Your task to perform on an android device: turn on showing notifications on the lock screen Image 0: 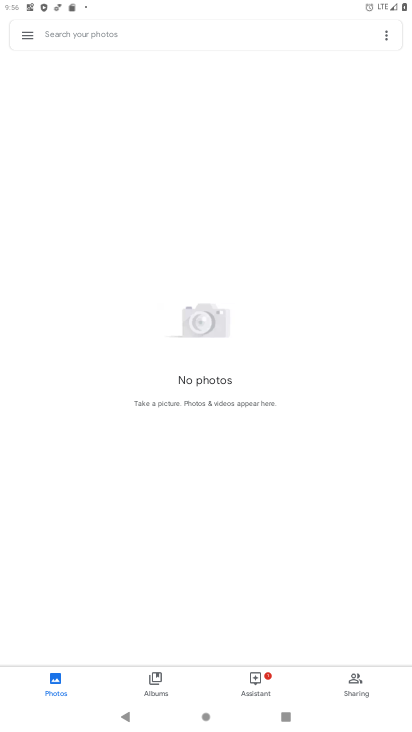
Step 0: press home button
Your task to perform on an android device: turn on showing notifications on the lock screen Image 1: 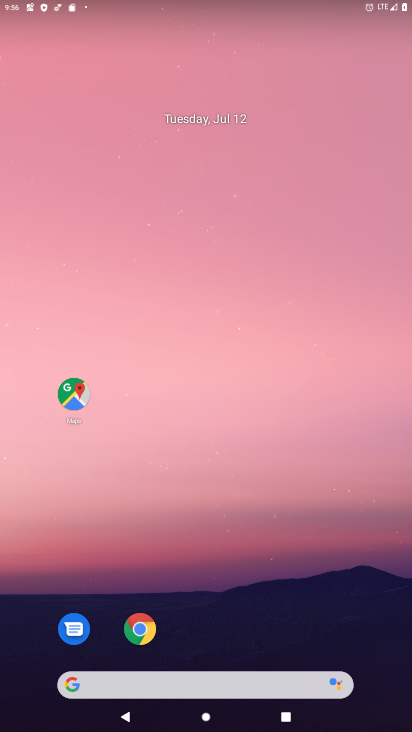
Step 1: drag from (349, 646) to (336, 50)
Your task to perform on an android device: turn on showing notifications on the lock screen Image 2: 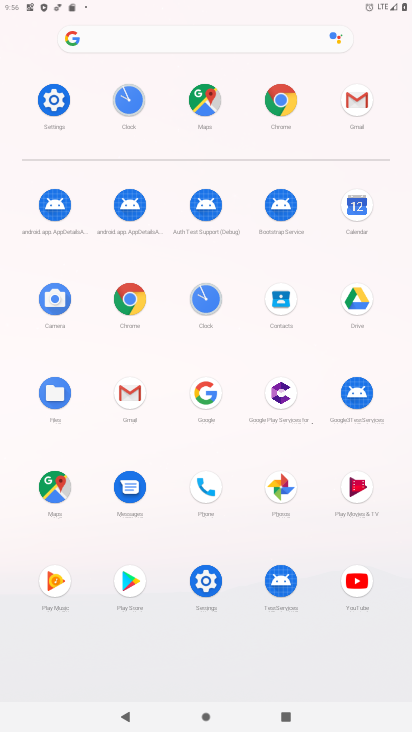
Step 2: click (206, 582)
Your task to perform on an android device: turn on showing notifications on the lock screen Image 3: 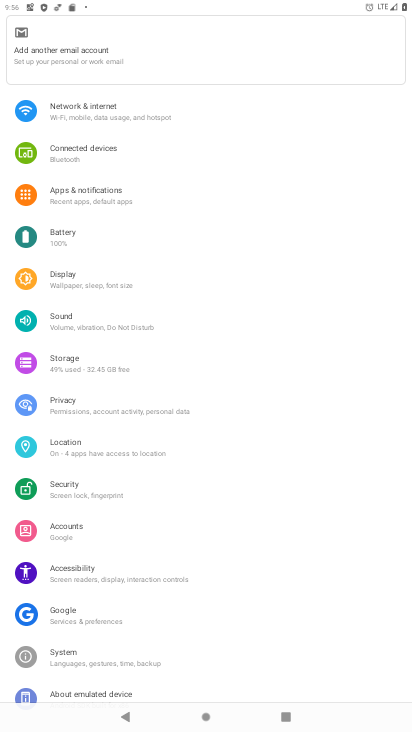
Step 3: click (60, 188)
Your task to perform on an android device: turn on showing notifications on the lock screen Image 4: 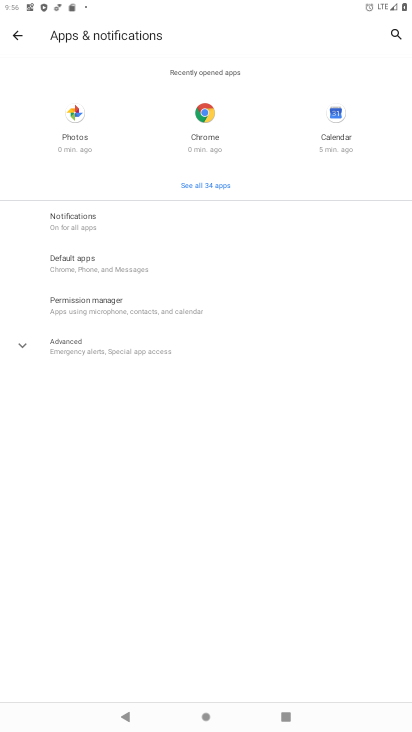
Step 4: click (65, 223)
Your task to perform on an android device: turn on showing notifications on the lock screen Image 5: 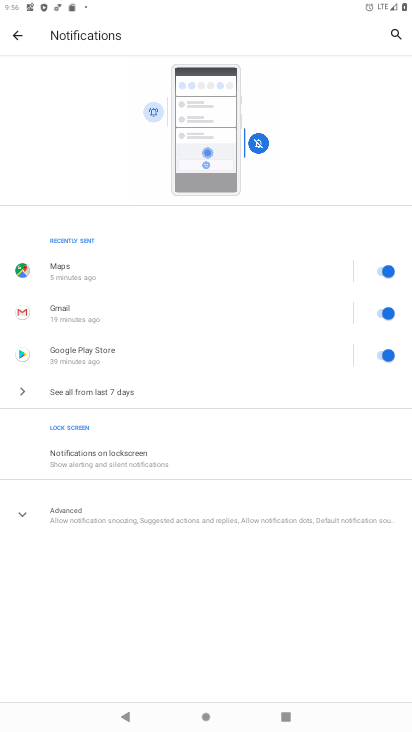
Step 5: click (96, 459)
Your task to perform on an android device: turn on showing notifications on the lock screen Image 6: 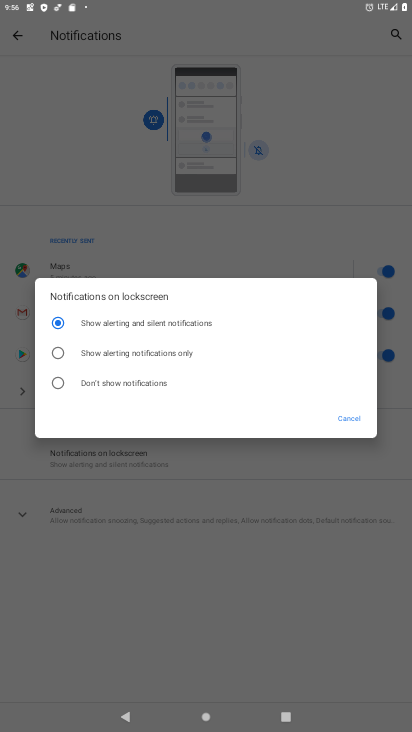
Step 6: task complete